Your task to perform on an android device: change the clock display to digital Image 0: 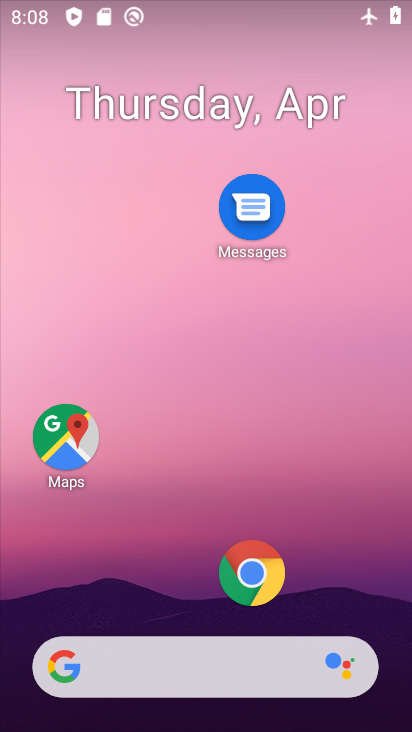
Step 0: drag from (195, 613) to (209, 204)
Your task to perform on an android device: change the clock display to digital Image 1: 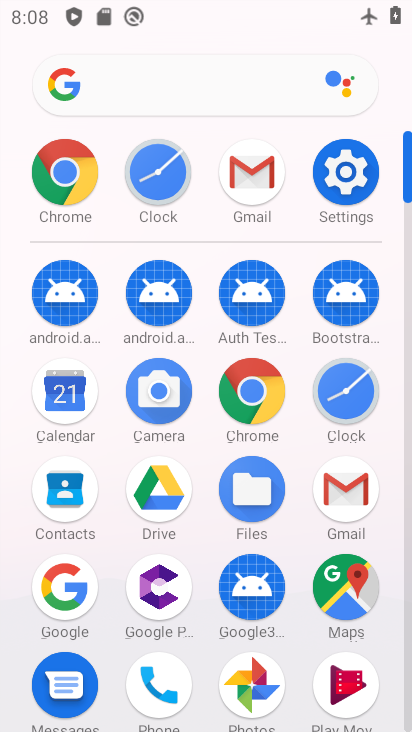
Step 1: click (343, 384)
Your task to perform on an android device: change the clock display to digital Image 2: 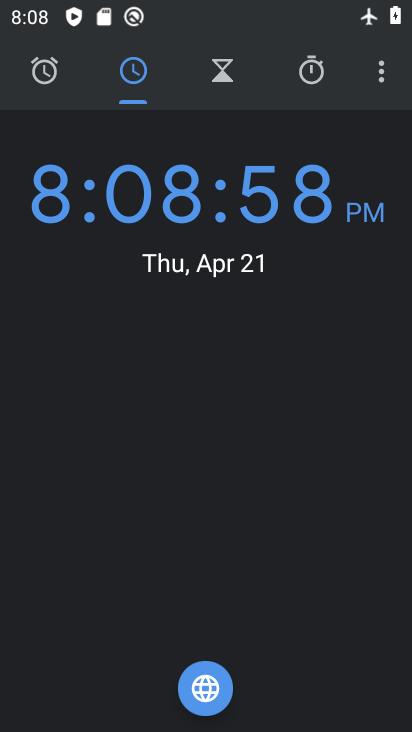
Step 2: click (374, 66)
Your task to perform on an android device: change the clock display to digital Image 3: 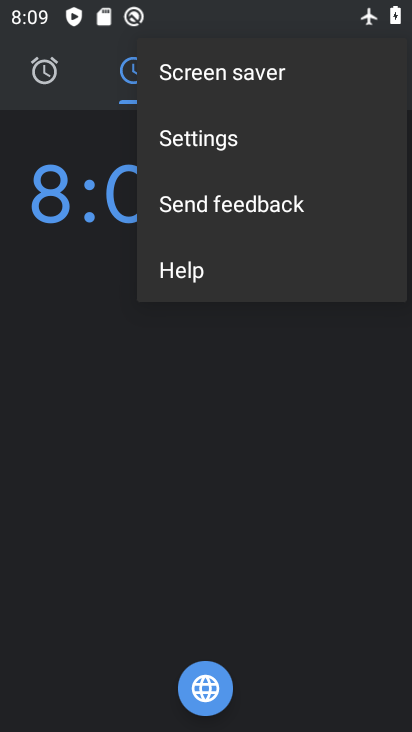
Step 3: click (253, 137)
Your task to perform on an android device: change the clock display to digital Image 4: 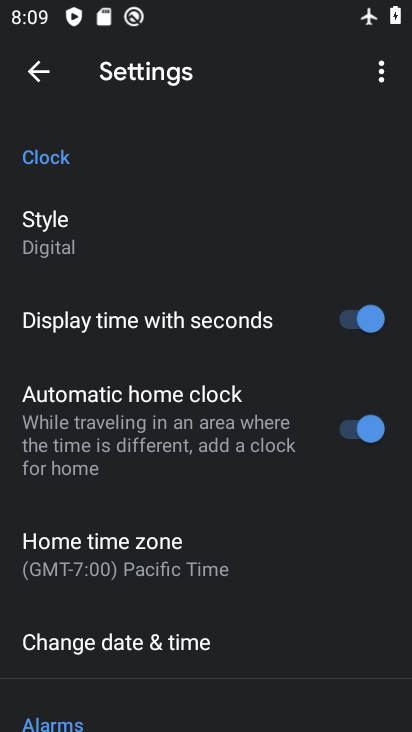
Step 4: click (95, 228)
Your task to perform on an android device: change the clock display to digital Image 5: 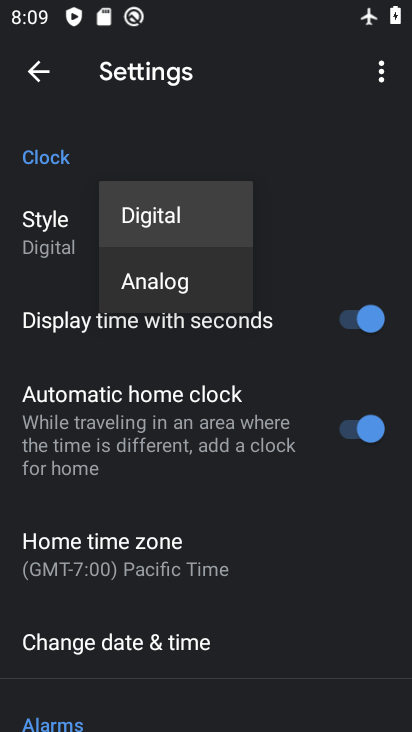
Step 5: click (138, 208)
Your task to perform on an android device: change the clock display to digital Image 6: 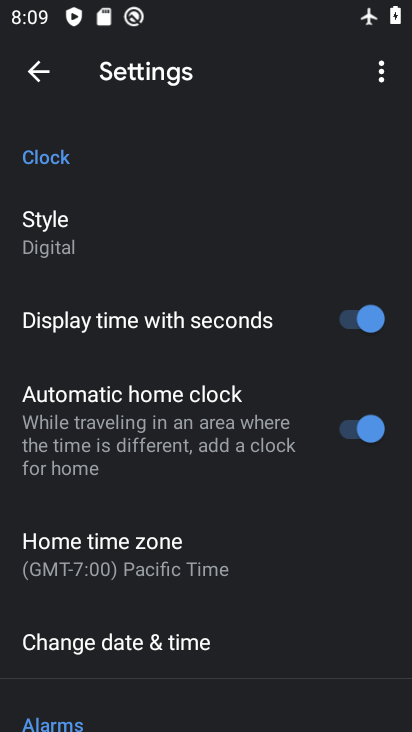
Step 6: task complete